Your task to perform on an android device: Add razer blackwidow to the cart on target, then select checkout. Image 0: 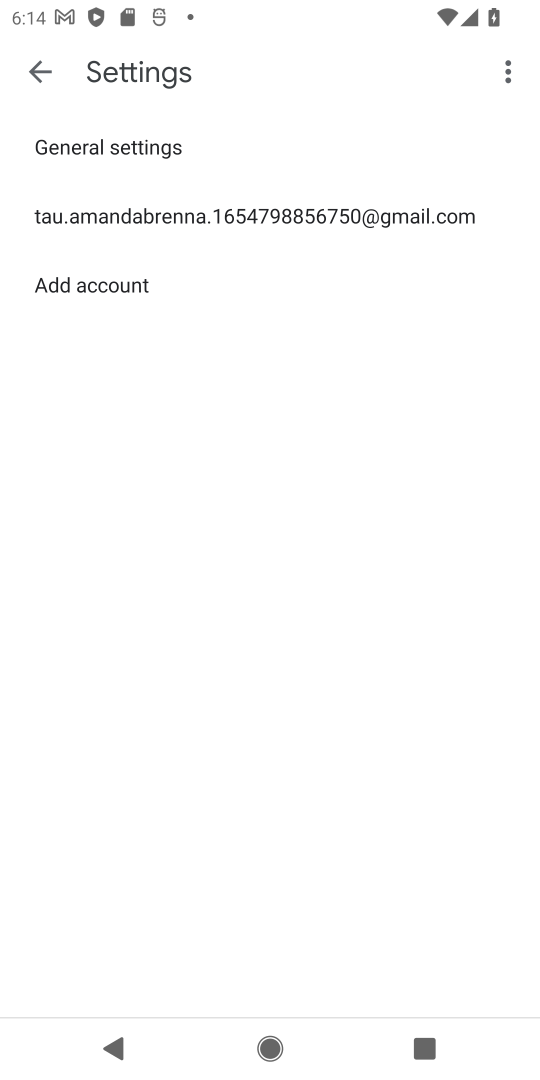
Step 0: press home button
Your task to perform on an android device: Add razer blackwidow to the cart on target, then select checkout. Image 1: 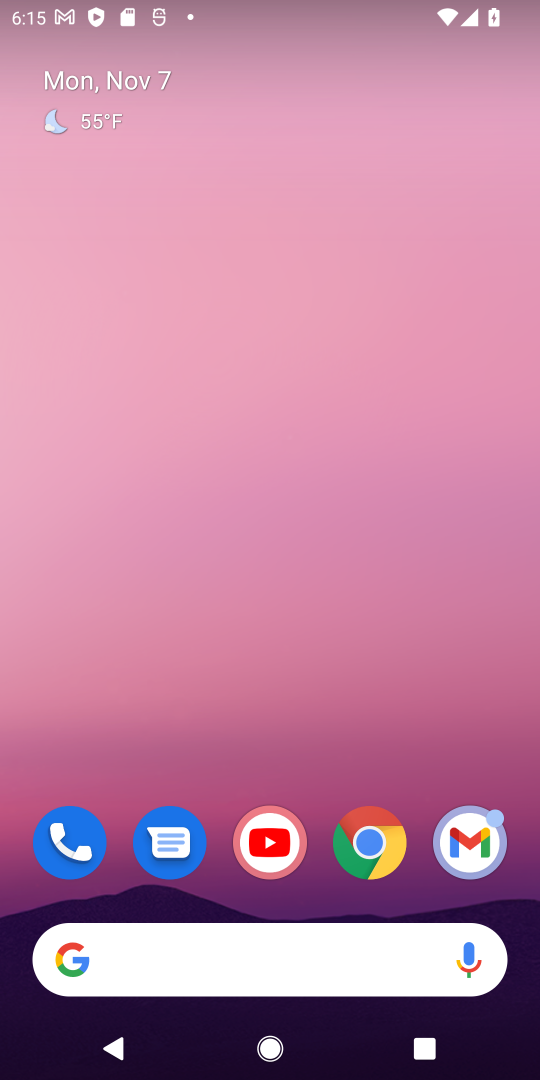
Step 1: click (375, 843)
Your task to perform on an android device: Add razer blackwidow to the cart on target, then select checkout. Image 2: 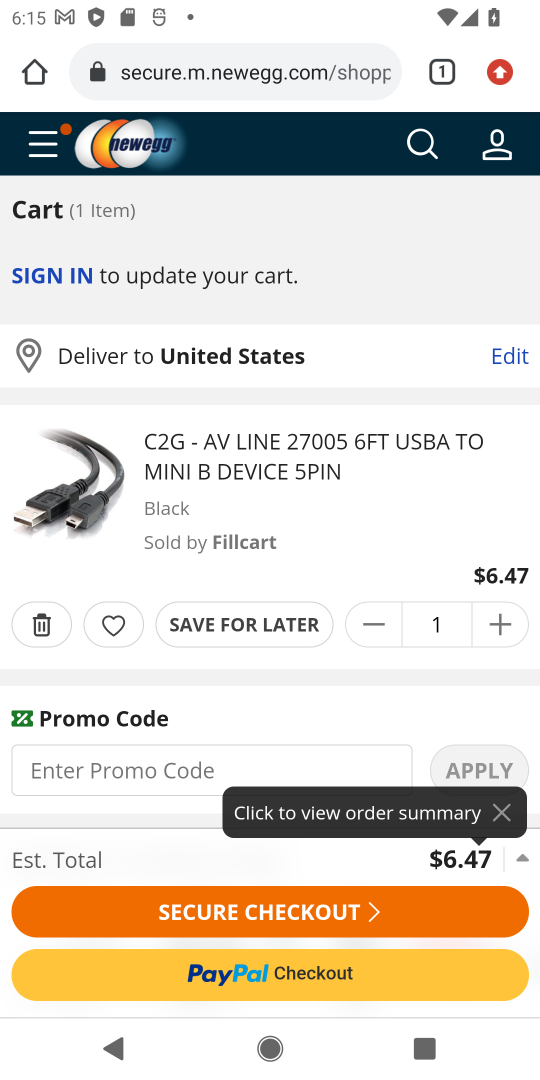
Step 2: click (276, 62)
Your task to perform on an android device: Add razer blackwidow to the cart on target, then select checkout. Image 3: 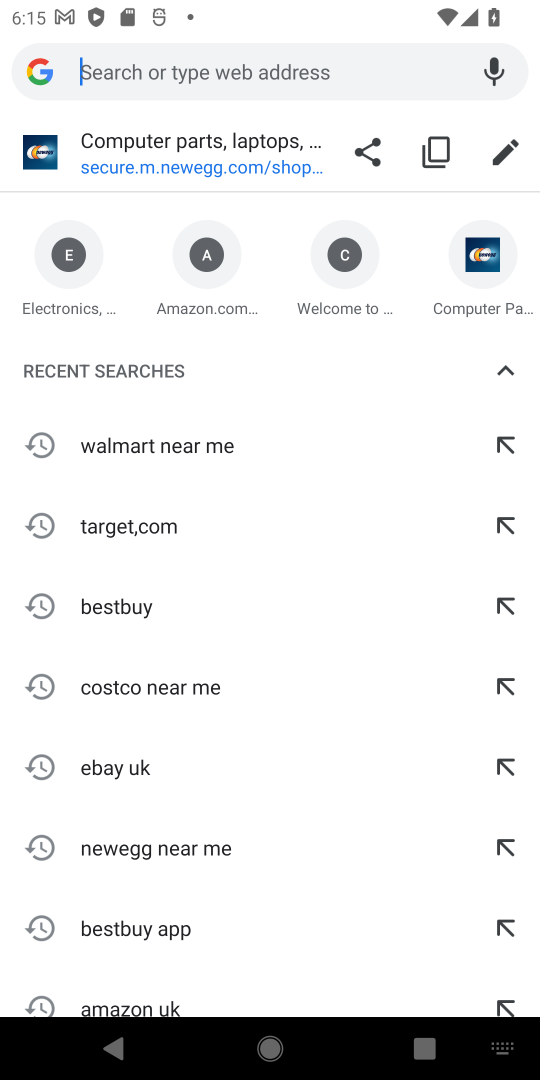
Step 3: type "target"
Your task to perform on an android device: Add razer blackwidow to the cart on target, then select checkout. Image 4: 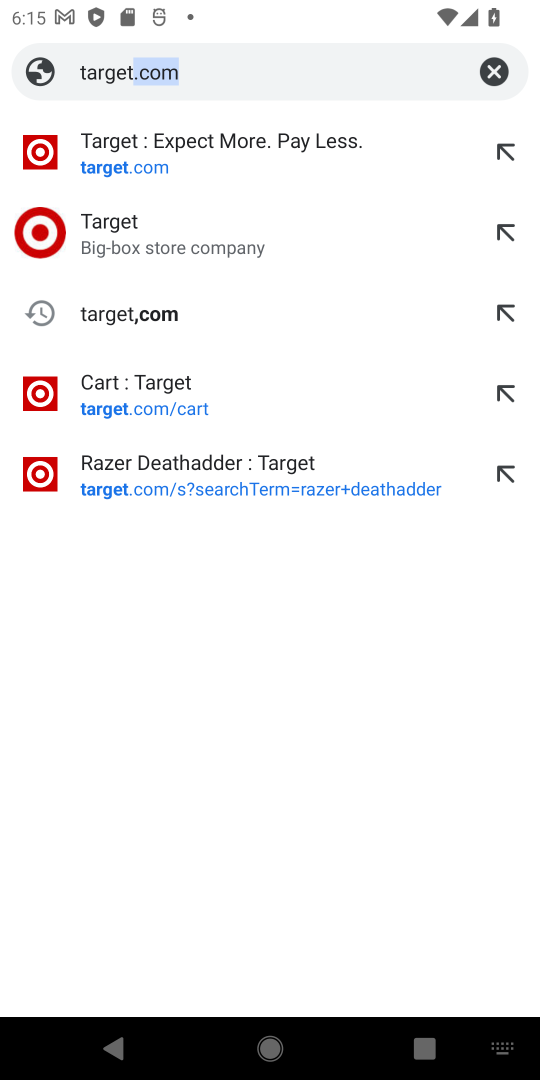
Step 4: click (131, 161)
Your task to perform on an android device: Add razer blackwidow to the cart on target, then select checkout. Image 5: 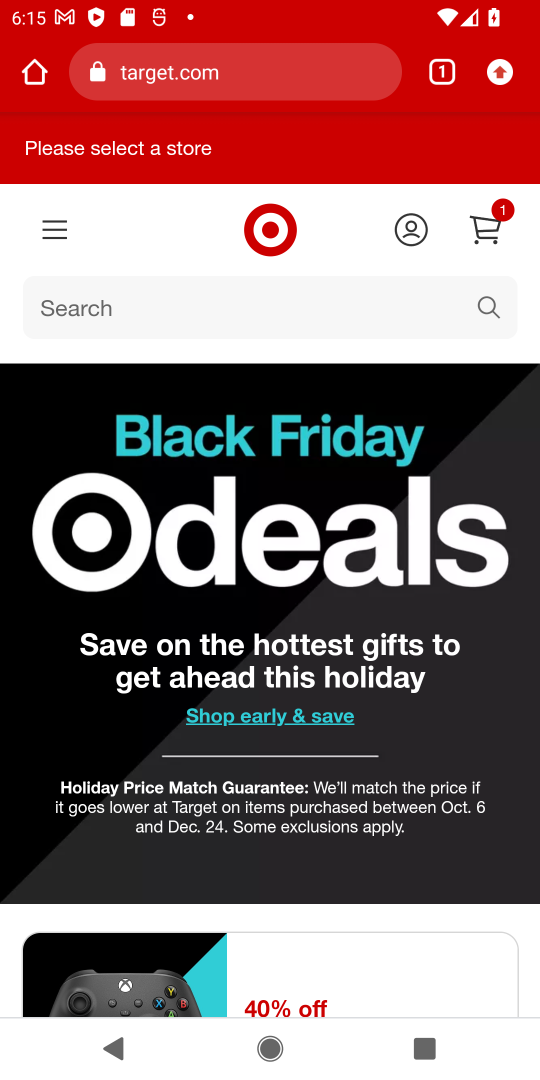
Step 5: click (162, 310)
Your task to perform on an android device: Add razer blackwidow to the cart on target, then select checkout. Image 6: 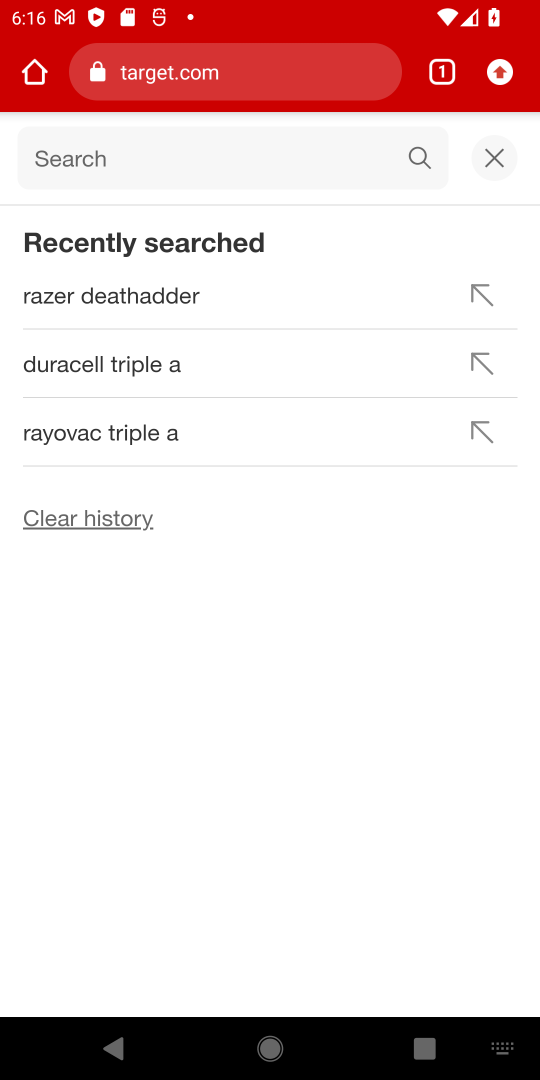
Step 6: type "razer blackwidow"
Your task to perform on an android device: Add razer blackwidow to the cart on target, then select checkout. Image 7: 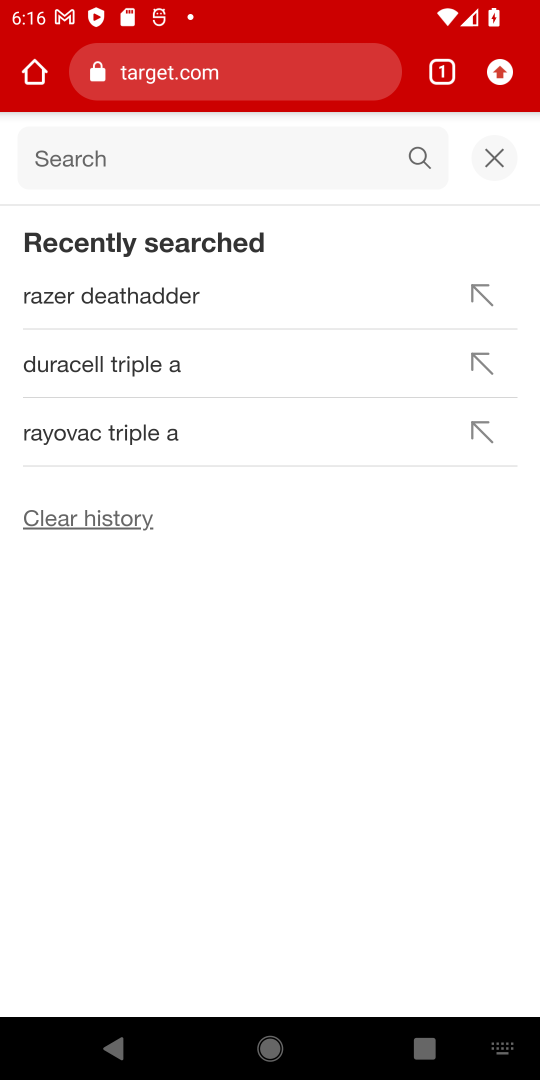
Step 7: press enter
Your task to perform on an android device: Add razer blackwidow to the cart on target, then select checkout. Image 8: 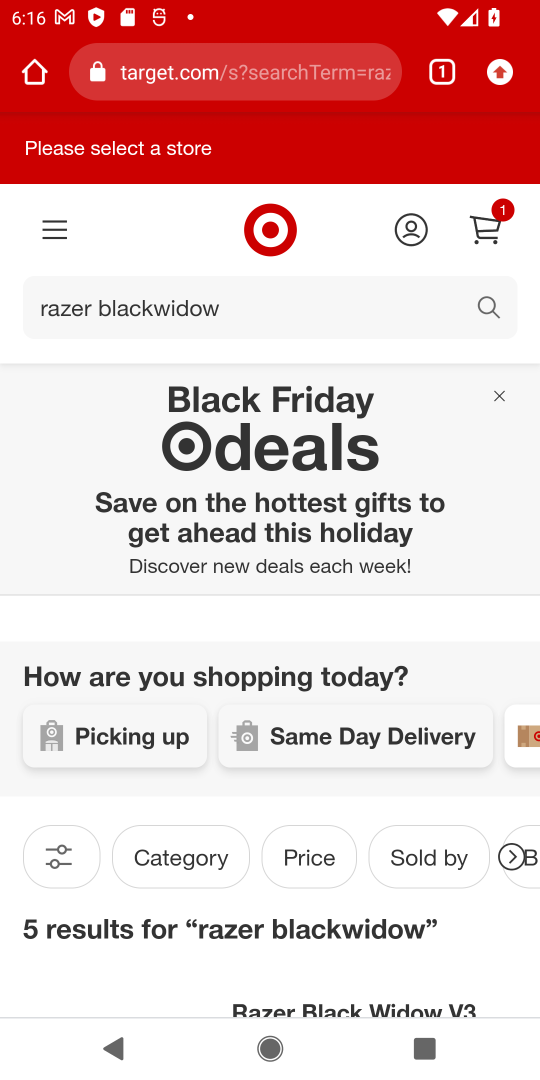
Step 8: drag from (214, 949) to (391, 238)
Your task to perform on an android device: Add razer blackwidow to the cart on target, then select checkout. Image 9: 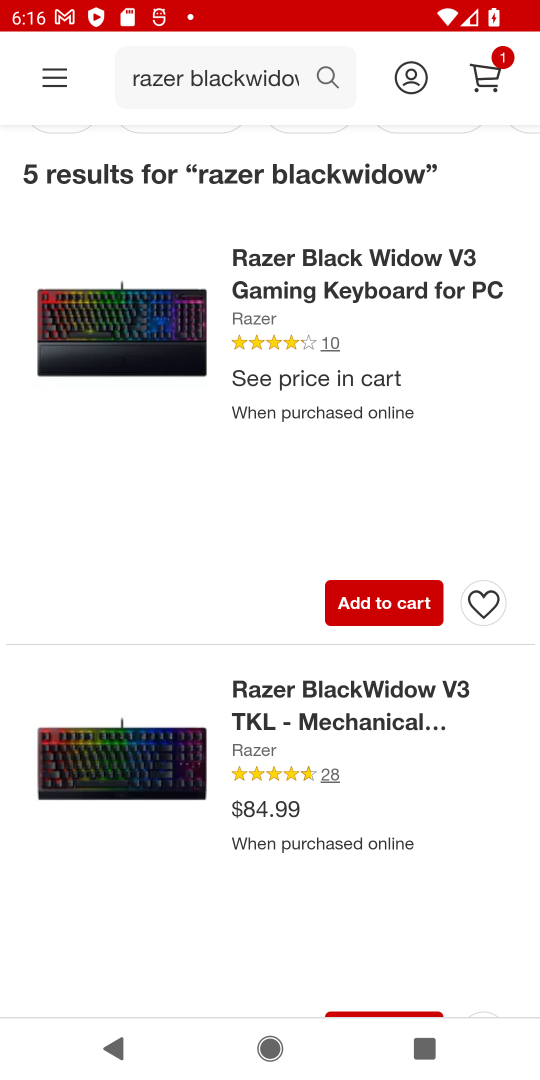
Step 9: click (409, 607)
Your task to perform on an android device: Add razer blackwidow to the cart on target, then select checkout. Image 10: 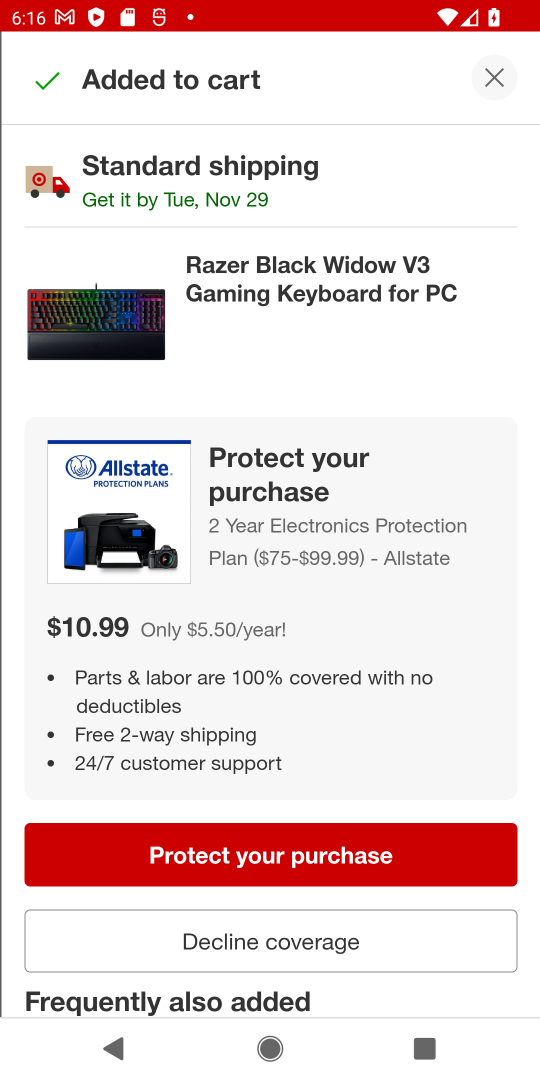
Step 10: click (298, 940)
Your task to perform on an android device: Add razer blackwidow to the cart on target, then select checkout. Image 11: 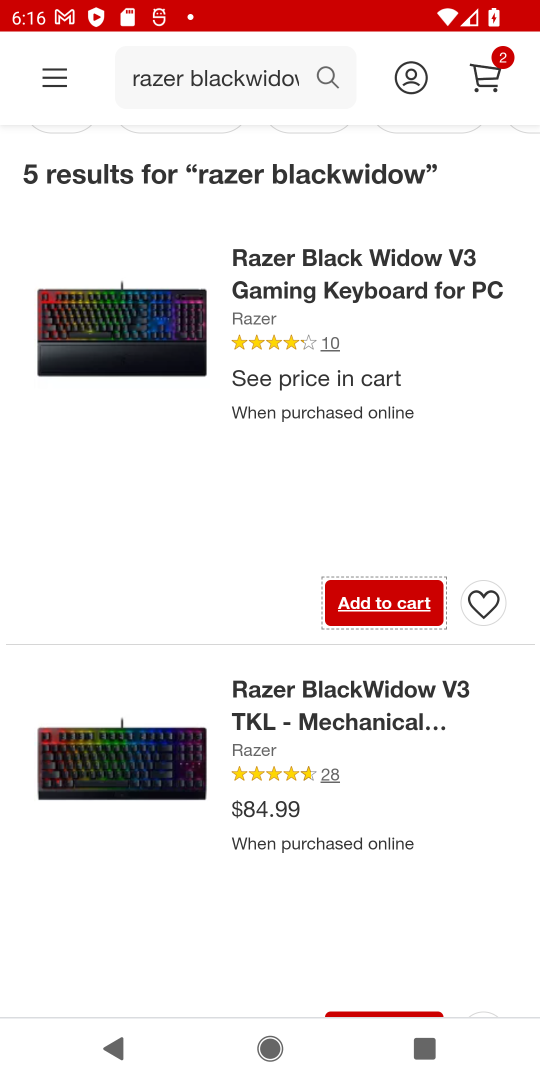
Step 11: click (482, 59)
Your task to perform on an android device: Add razer blackwidow to the cart on target, then select checkout. Image 12: 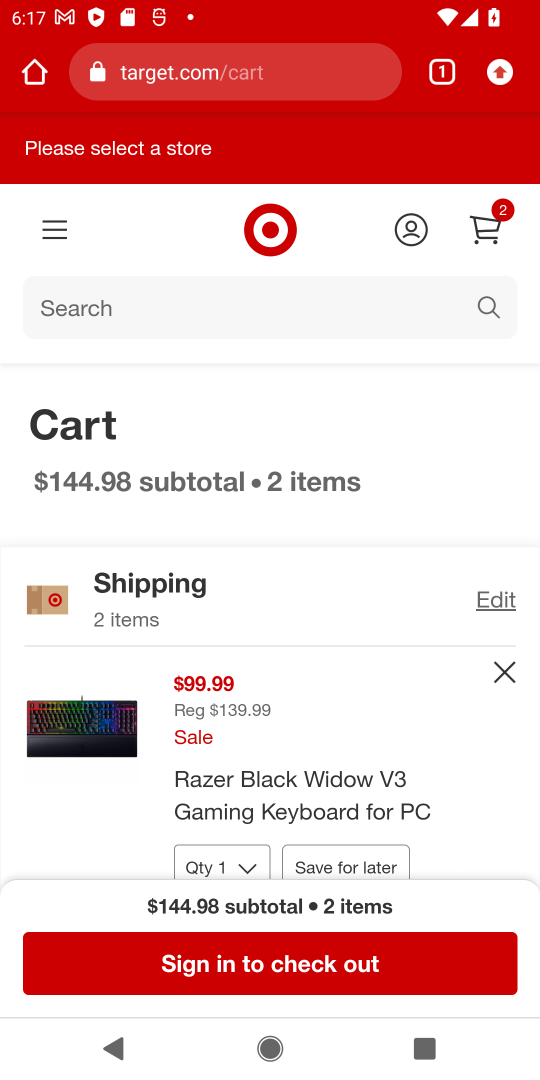
Step 12: drag from (272, 753) to (340, 423)
Your task to perform on an android device: Add razer blackwidow to the cart on target, then select checkout. Image 13: 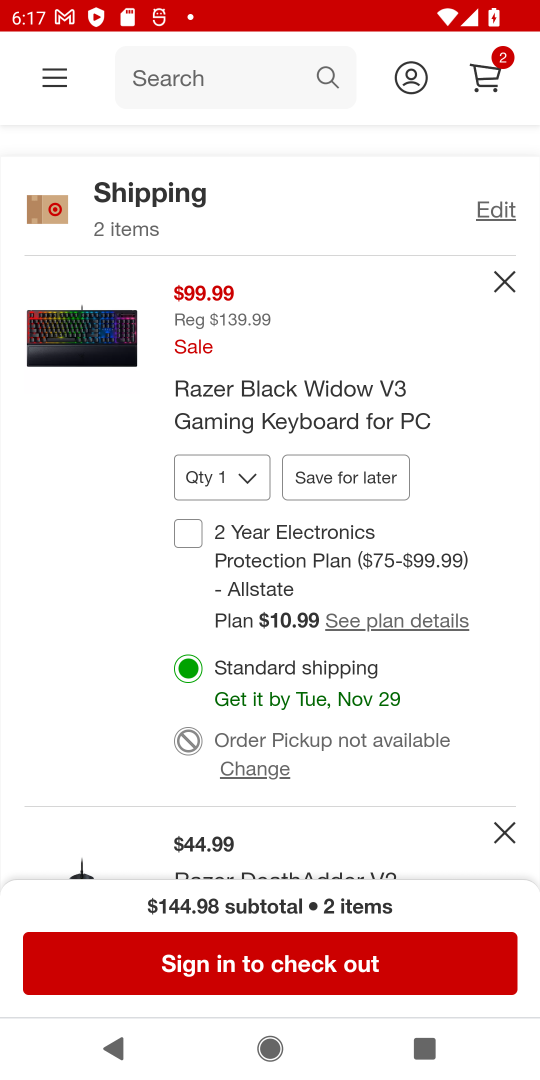
Step 13: drag from (305, 763) to (404, 324)
Your task to perform on an android device: Add razer blackwidow to the cart on target, then select checkout. Image 14: 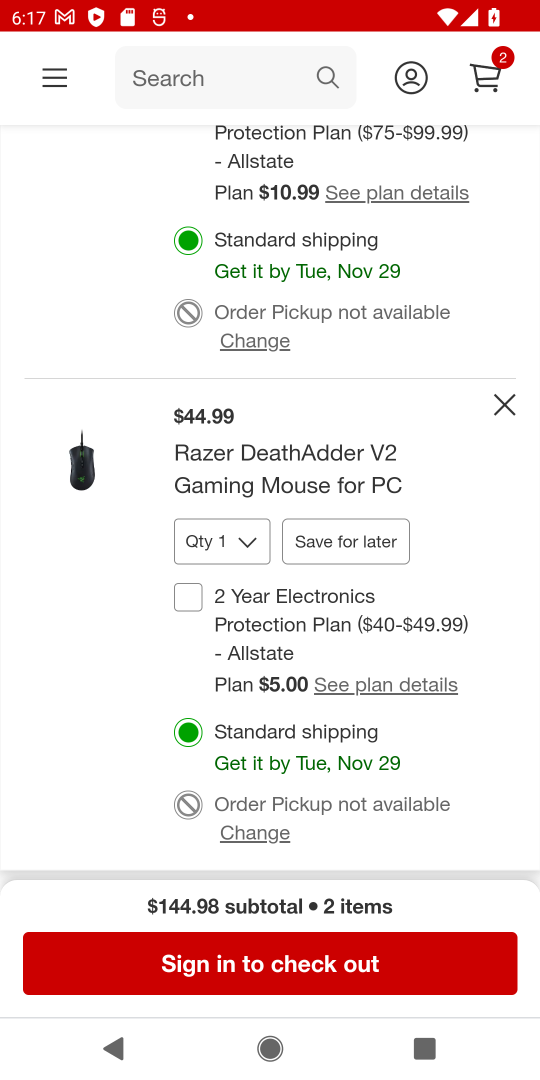
Step 14: click (500, 403)
Your task to perform on an android device: Add razer blackwidow to the cart on target, then select checkout. Image 15: 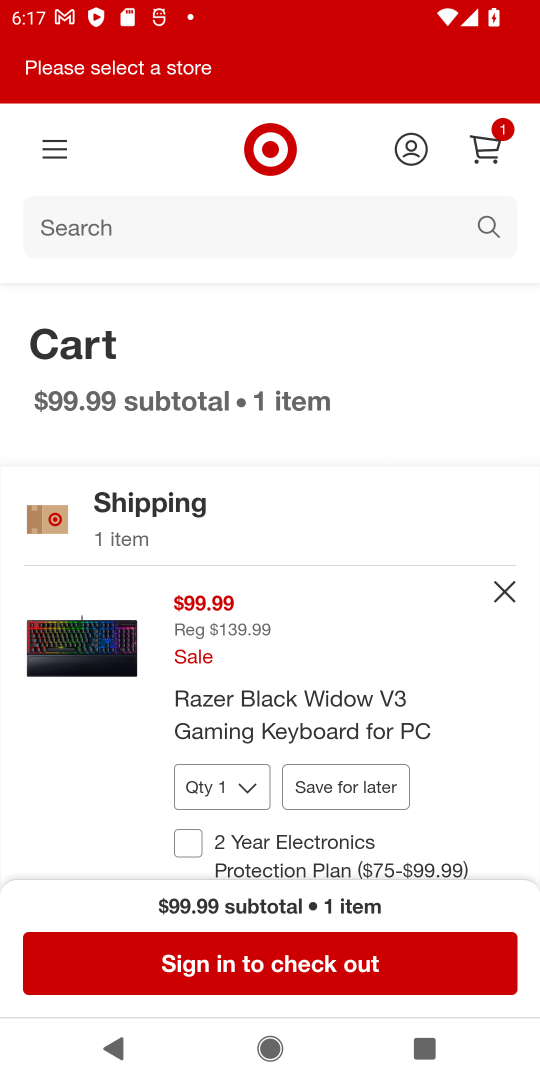
Step 15: click (306, 965)
Your task to perform on an android device: Add razer blackwidow to the cart on target, then select checkout. Image 16: 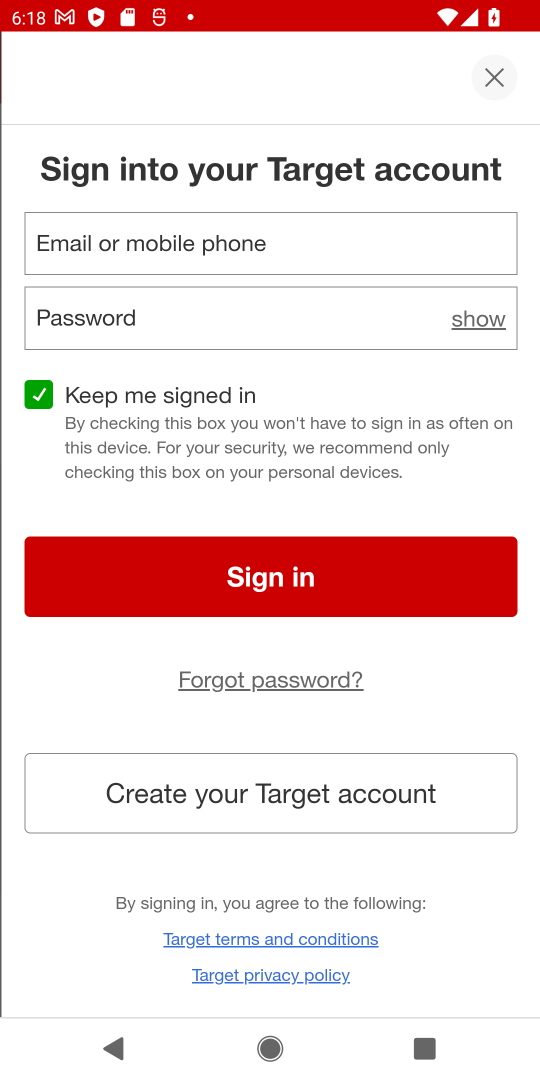
Step 16: task complete